Your task to perform on an android device: When is my next appointment? Image 0: 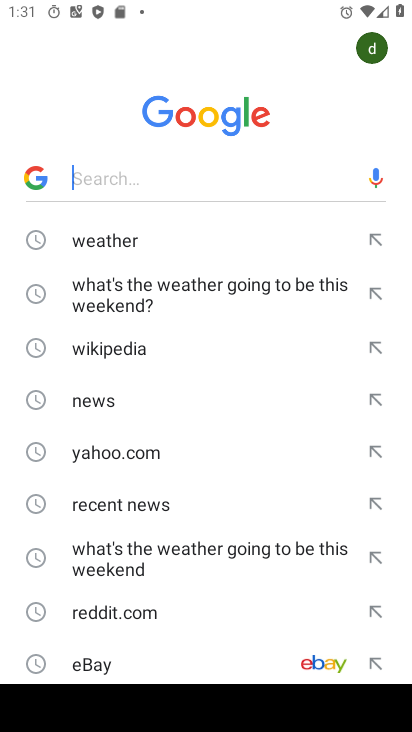
Step 0: press home button
Your task to perform on an android device: When is my next appointment? Image 1: 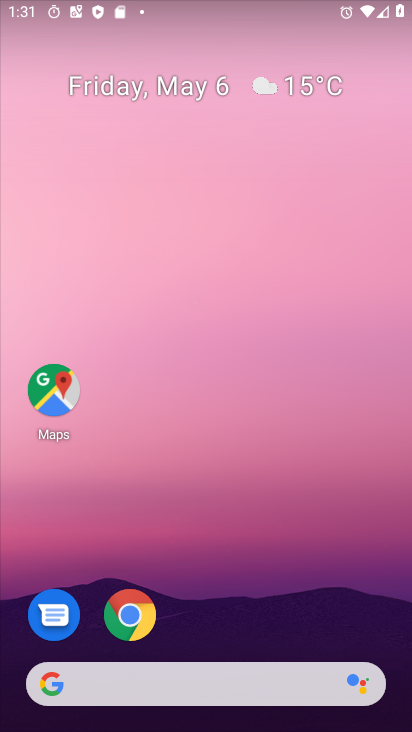
Step 1: drag from (253, 539) to (225, 28)
Your task to perform on an android device: When is my next appointment? Image 2: 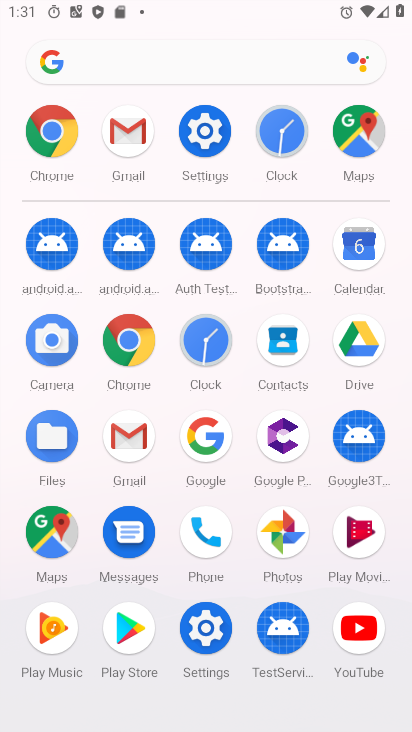
Step 2: click (358, 238)
Your task to perform on an android device: When is my next appointment? Image 3: 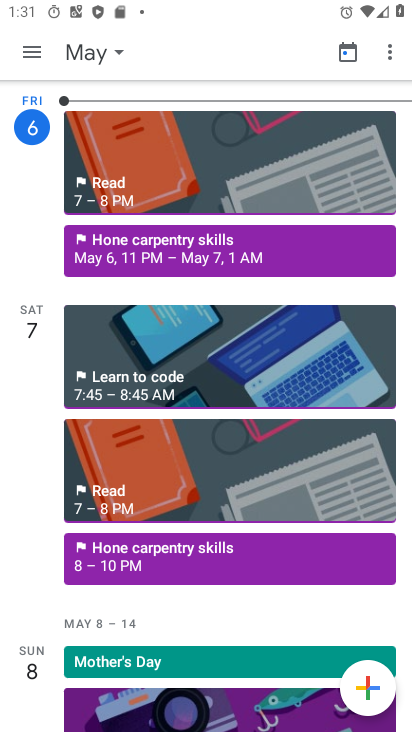
Step 3: task complete